Your task to perform on an android device: change notification settings in the gmail app Image 0: 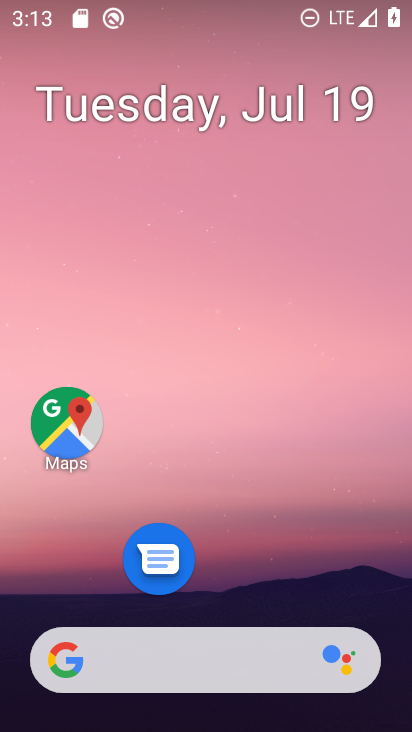
Step 0: drag from (263, 611) to (279, 125)
Your task to perform on an android device: change notification settings in the gmail app Image 1: 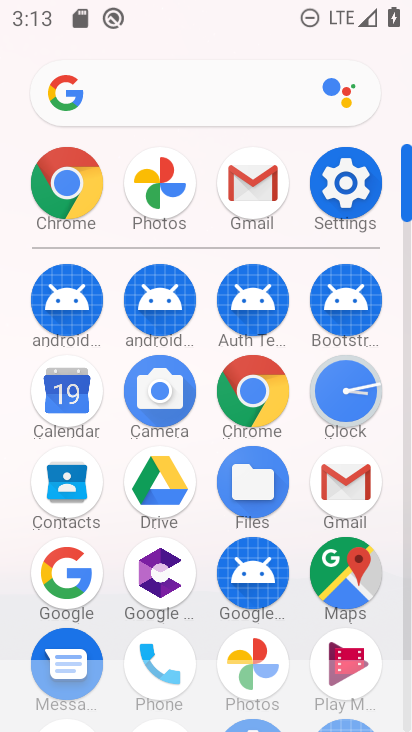
Step 1: click (337, 490)
Your task to perform on an android device: change notification settings in the gmail app Image 2: 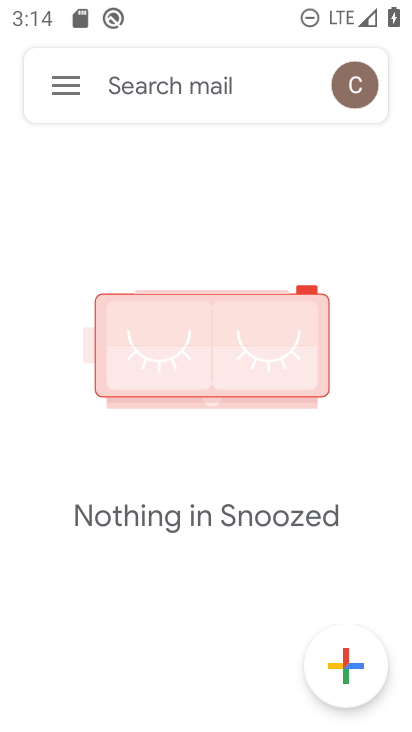
Step 2: click (75, 84)
Your task to perform on an android device: change notification settings in the gmail app Image 3: 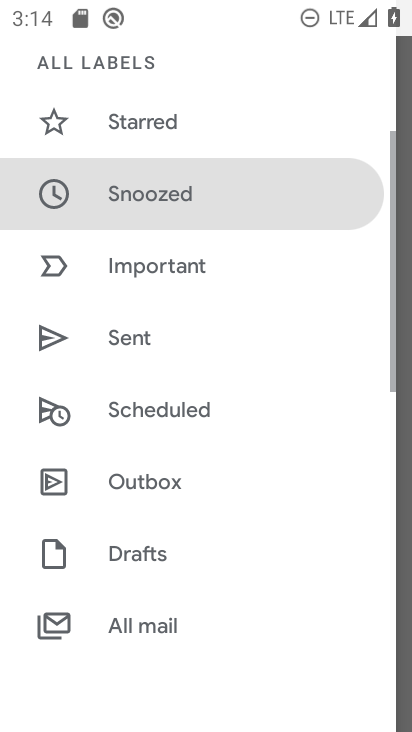
Step 3: drag from (122, 513) to (202, 131)
Your task to perform on an android device: change notification settings in the gmail app Image 4: 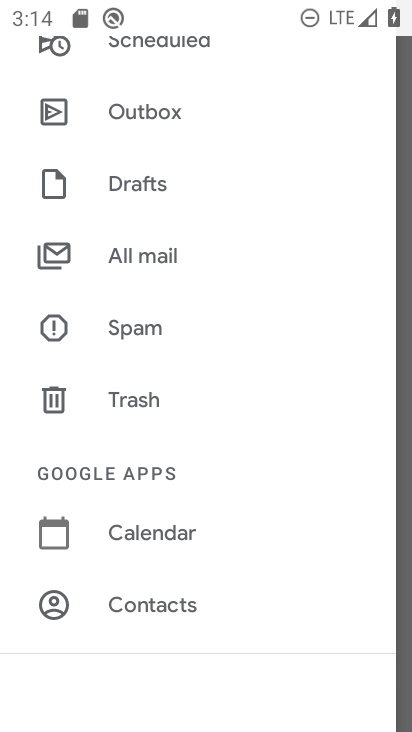
Step 4: drag from (148, 614) to (165, 200)
Your task to perform on an android device: change notification settings in the gmail app Image 5: 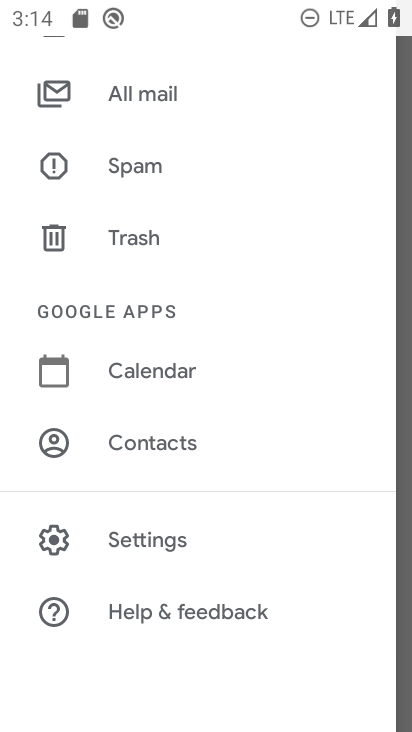
Step 5: click (145, 545)
Your task to perform on an android device: change notification settings in the gmail app Image 6: 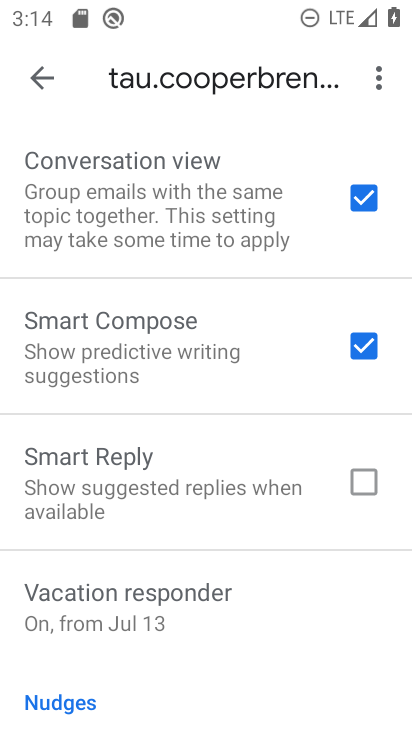
Step 6: drag from (157, 558) to (192, 91)
Your task to perform on an android device: change notification settings in the gmail app Image 7: 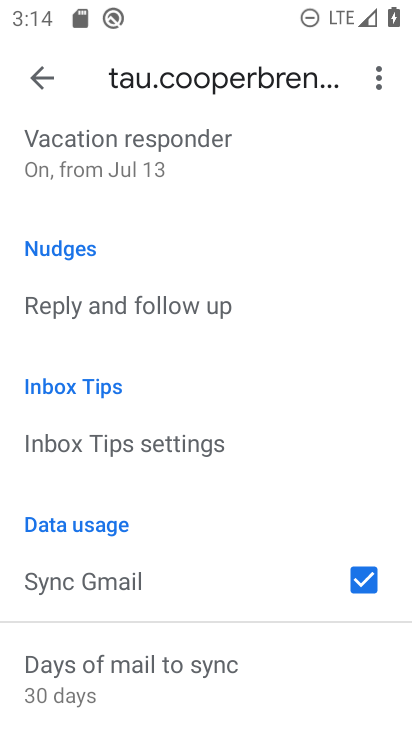
Step 7: drag from (124, 567) to (164, 205)
Your task to perform on an android device: change notification settings in the gmail app Image 8: 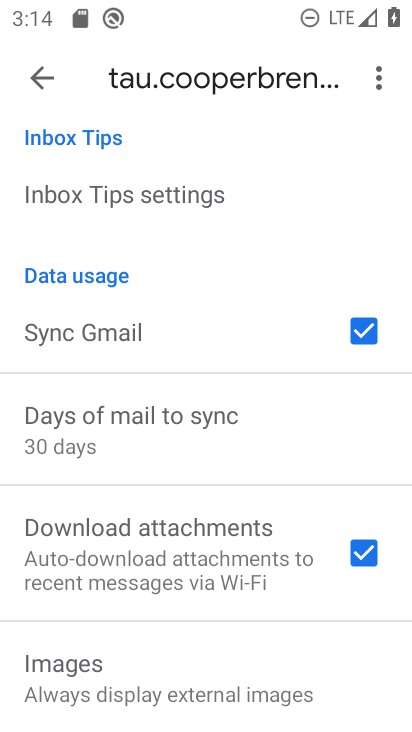
Step 8: click (55, 83)
Your task to perform on an android device: change notification settings in the gmail app Image 9: 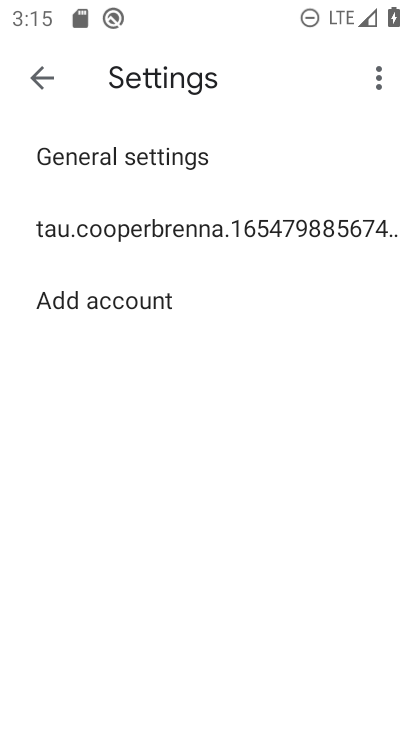
Step 9: click (135, 159)
Your task to perform on an android device: change notification settings in the gmail app Image 10: 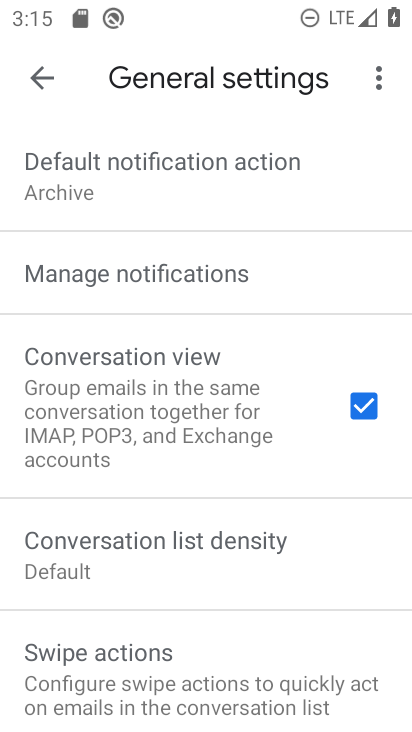
Step 10: click (151, 267)
Your task to perform on an android device: change notification settings in the gmail app Image 11: 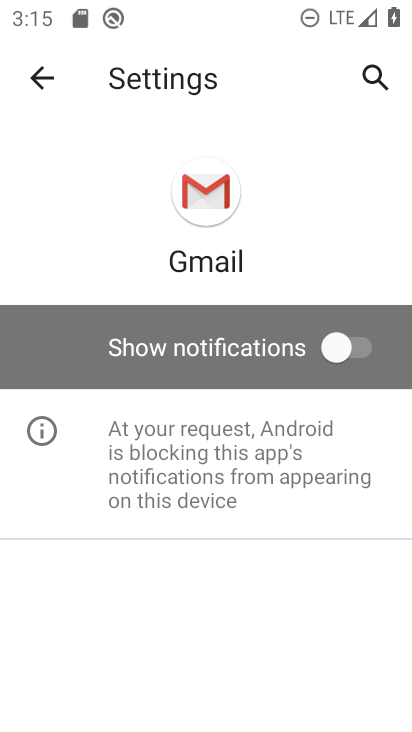
Step 11: click (357, 350)
Your task to perform on an android device: change notification settings in the gmail app Image 12: 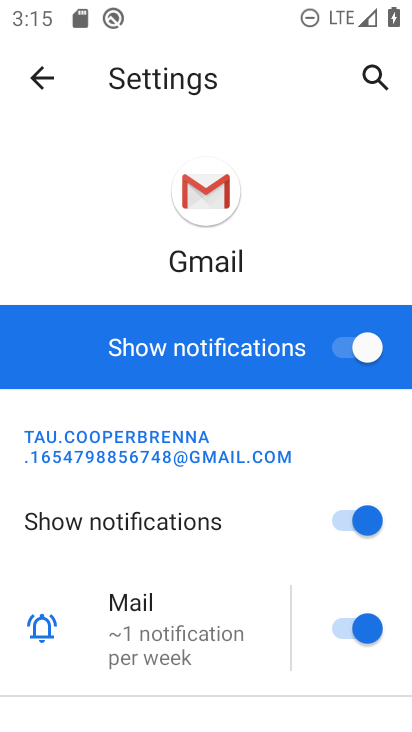
Step 12: task complete